Your task to perform on an android device: Open notification settings Image 0: 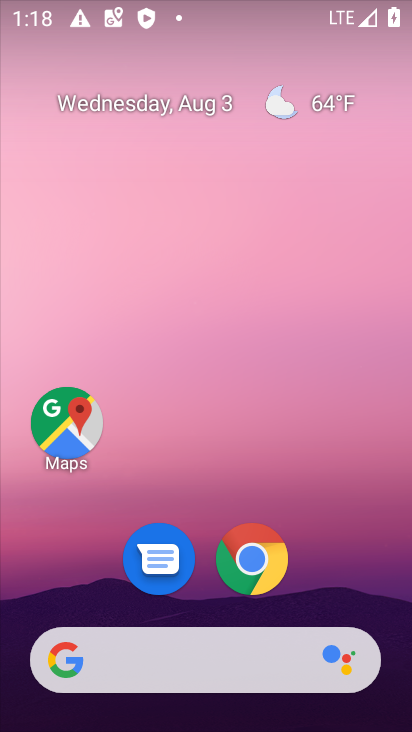
Step 0: drag from (208, 608) to (213, 105)
Your task to perform on an android device: Open notification settings Image 1: 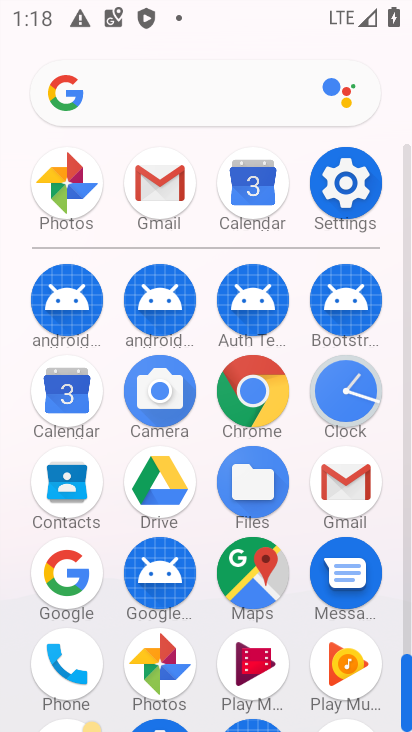
Step 1: click (357, 182)
Your task to perform on an android device: Open notification settings Image 2: 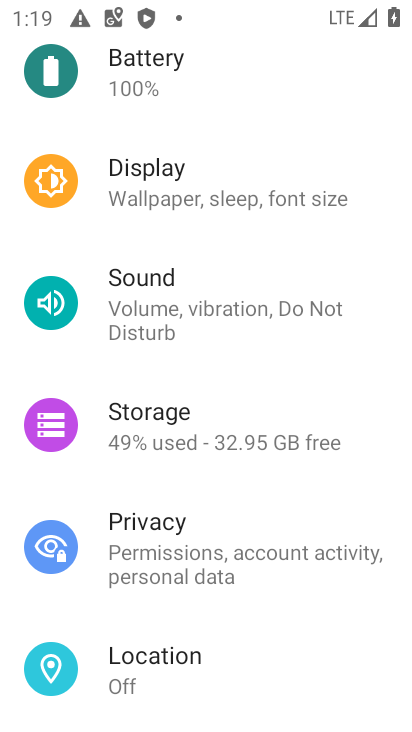
Step 2: drag from (172, 124) to (167, 584)
Your task to perform on an android device: Open notification settings Image 3: 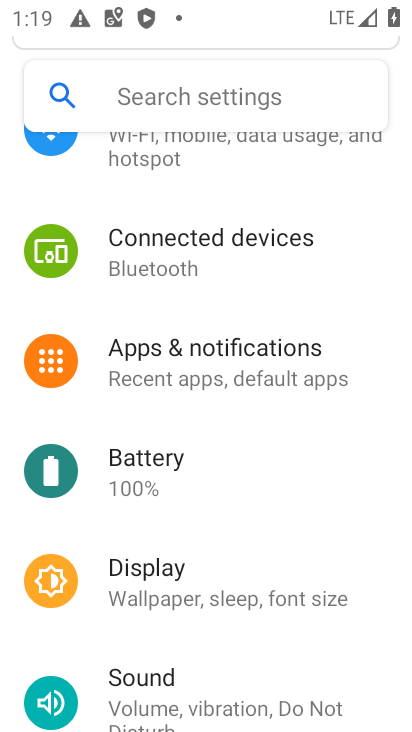
Step 3: click (219, 365)
Your task to perform on an android device: Open notification settings Image 4: 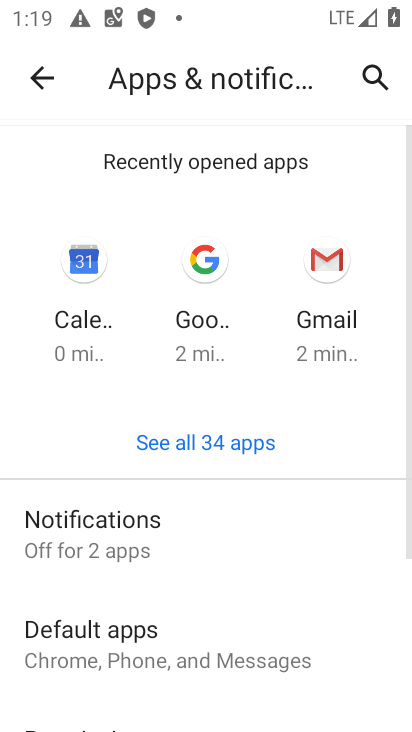
Step 4: click (88, 544)
Your task to perform on an android device: Open notification settings Image 5: 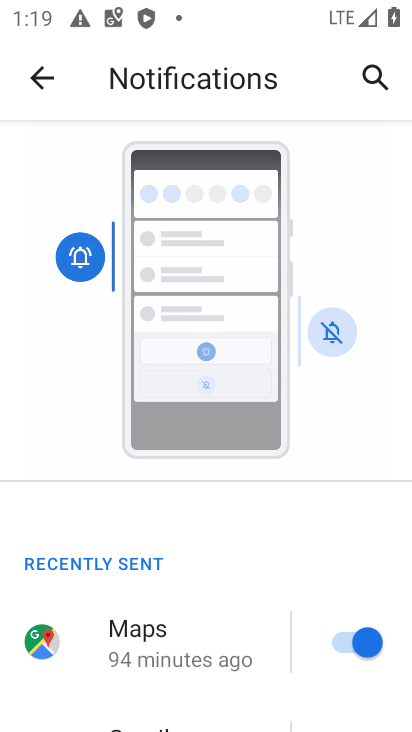
Step 5: task complete